Your task to perform on an android device: Open calendar and show me the first week of next month Image 0: 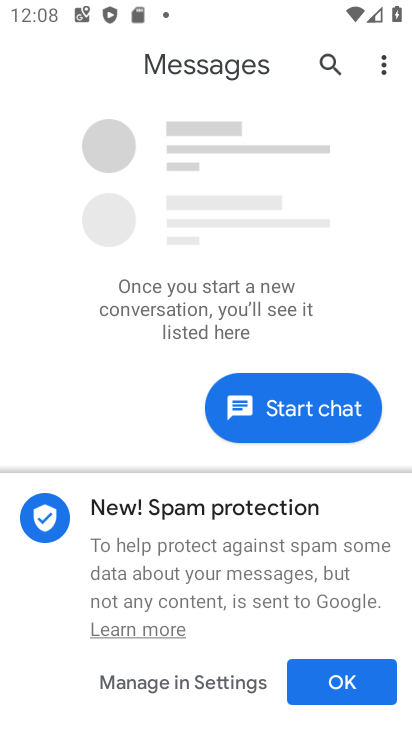
Step 0: press home button
Your task to perform on an android device: Open calendar and show me the first week of next month Image 1: 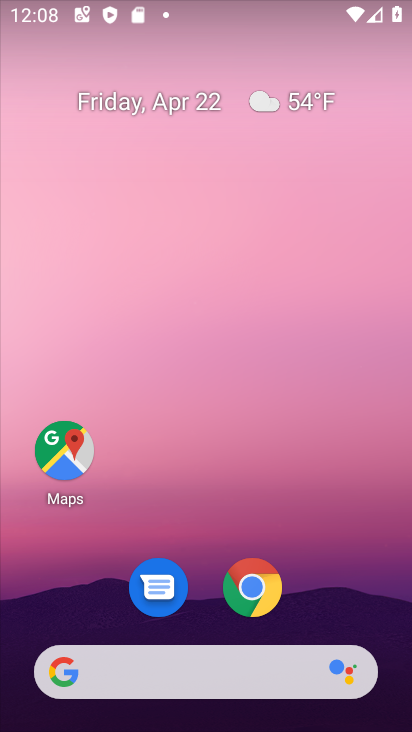
Step 1: drag from (377, 564) to (345, 5)
Your task to perform on an android device: Open calendar and show me the first week of next month Image 2: 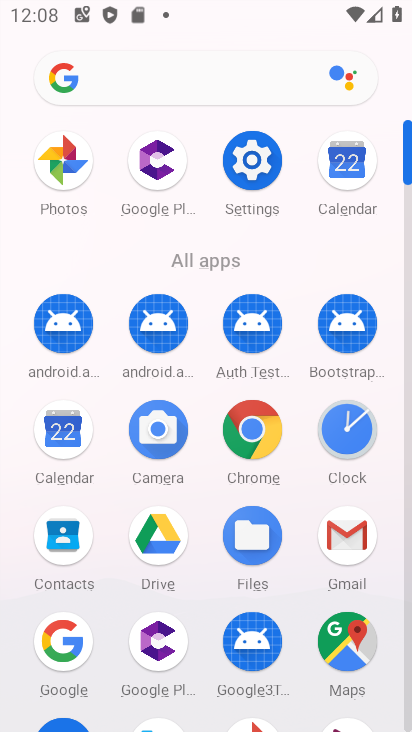
Step 2: click (348, 172)
Your task to perform on an android device: Open calendar and show me the first week of next month Image 3: 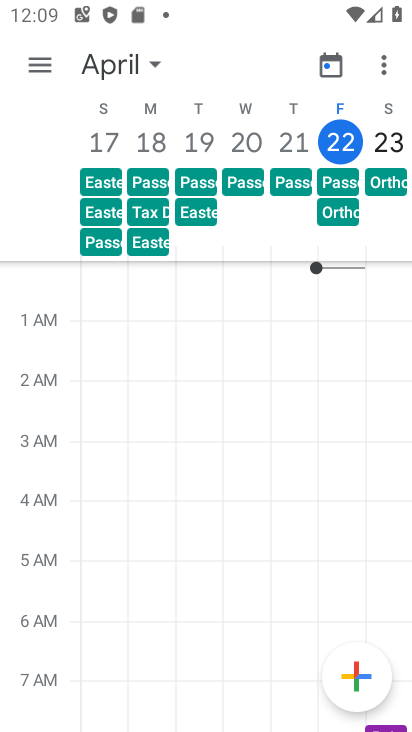
Step 3: click (152, 64)
Your task to perform on an android device: Open calendar and show me the first week of next month Image 4: 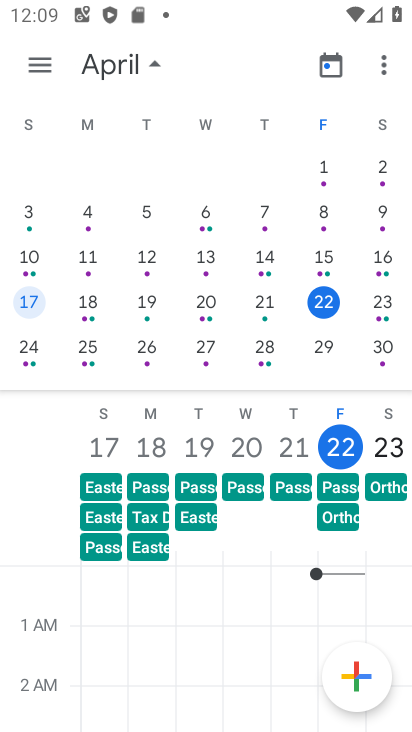
Step 4: task complete